Your task to perform on an android device: Open Maps and search for coffee Image 0: 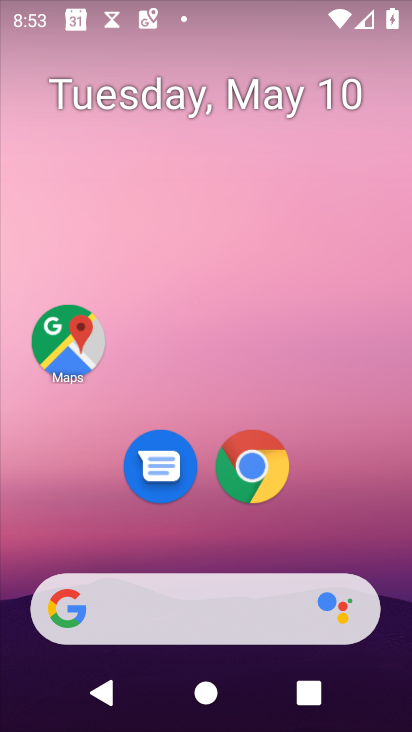
Step 0: drag from (275, 530) to (370, 54)
Your task to perform on an android device: Open Maps and search for coffee Image 1: 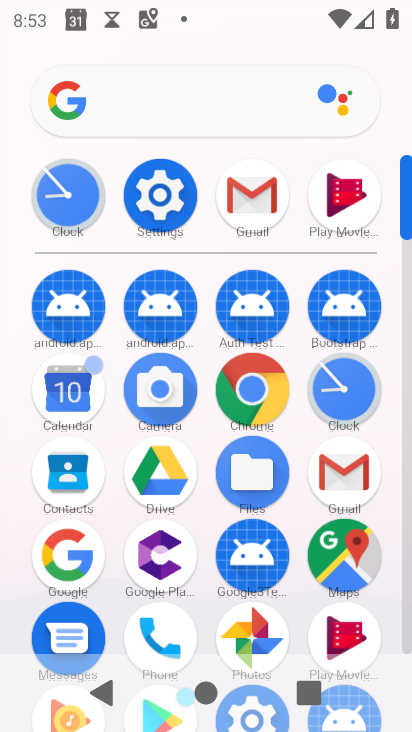
Step 1: click (338, 555)
Your task to perform on an android device: Open Maps and search for coffee Image 2: 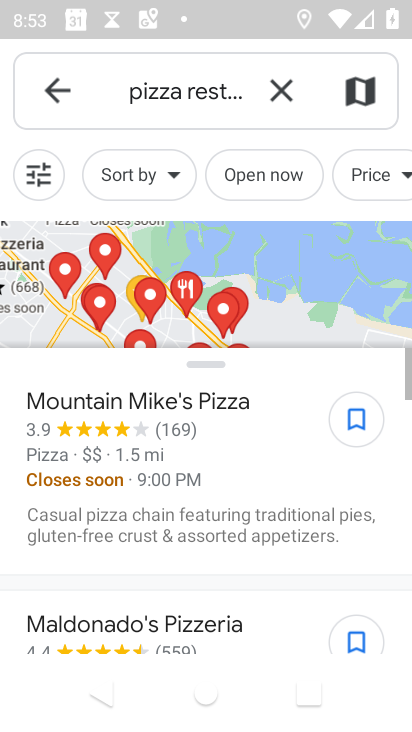
Step 2: click (273, 89)
Your task to perform on an android device: Open Maps and search for coffee Image 3: 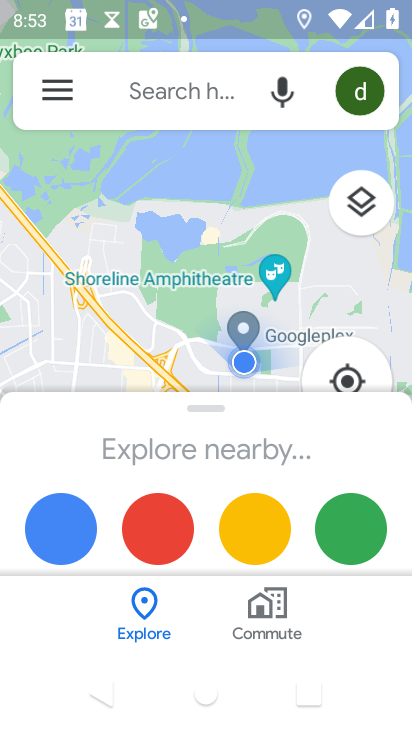
Step 3: click (201, 94)
Your task to perform on an android device: Open Maps and search for coffee Image 4: 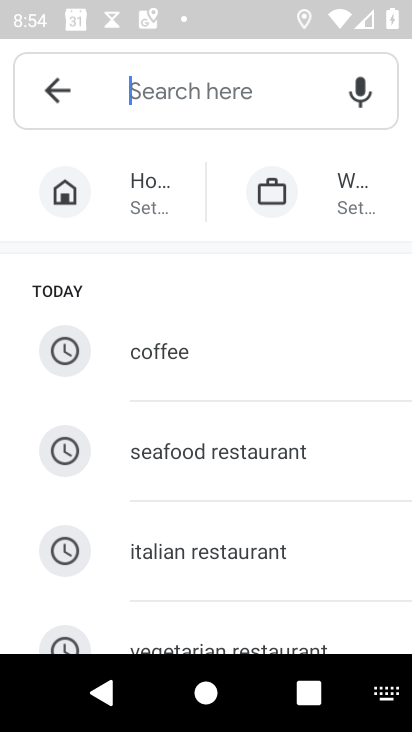
Step 4: type "coffee"
Your task to perform on an android device: Open Maps and search for coffee Image 5: 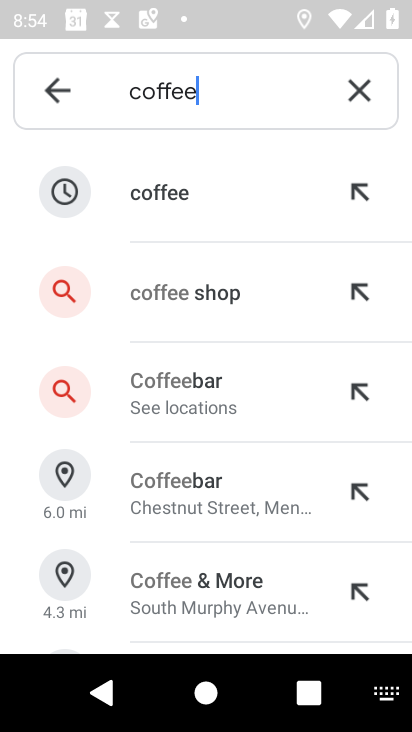
Step 5: click (167, 178)
Your task to perform on an android device: Open Maps and search for coffee Image 6: 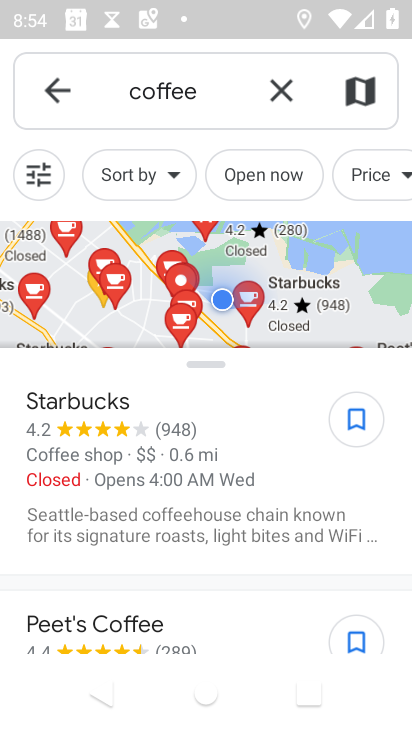
Step 6: task complete